Your task to perform on an android device: Open Google Image 0: 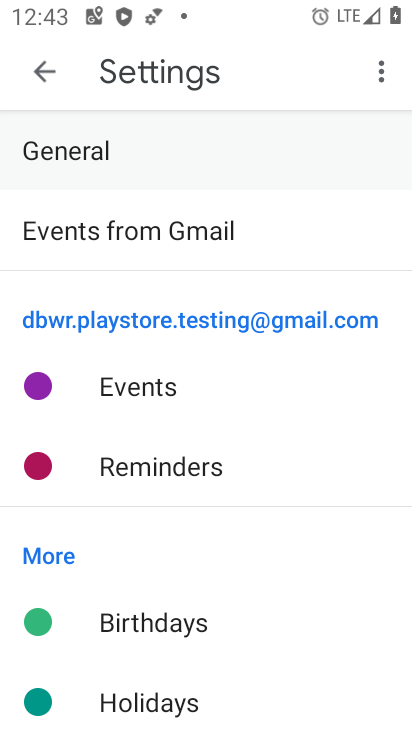
Step 0: press home button
Your task to perform on an android device: Open Google Image 1: 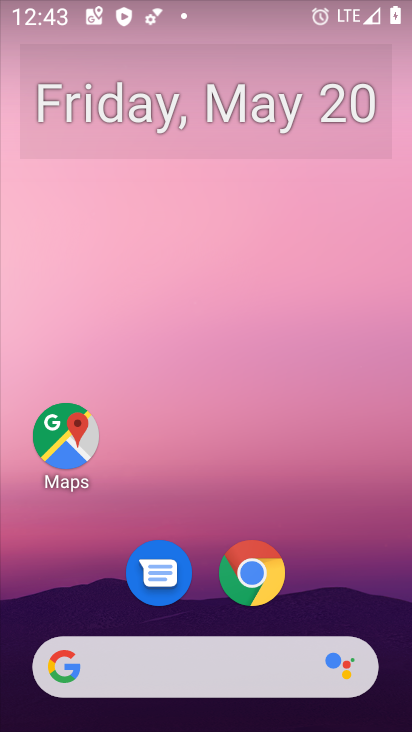
Step 1: drag from (202, 583) to (232, 191)
Your task to perform on an android device: Open Google Image 2: 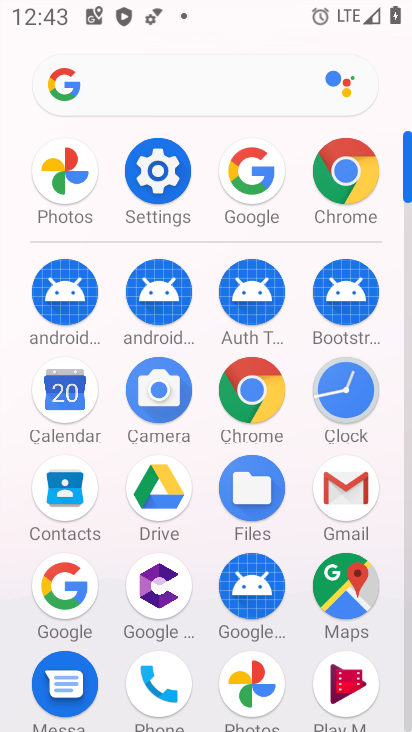
Step 2: click (258, 174)
Your task to perform on an android device: Open Google Image 3: 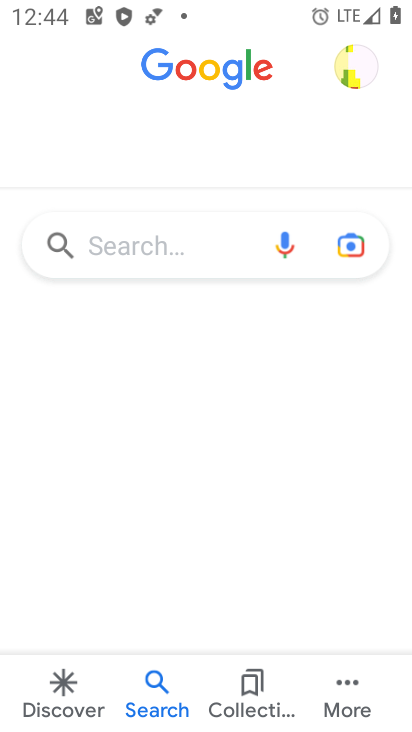
Step 3: task complete